Your task to perform on an android device: Show me popular videos on Youtube Image 0: 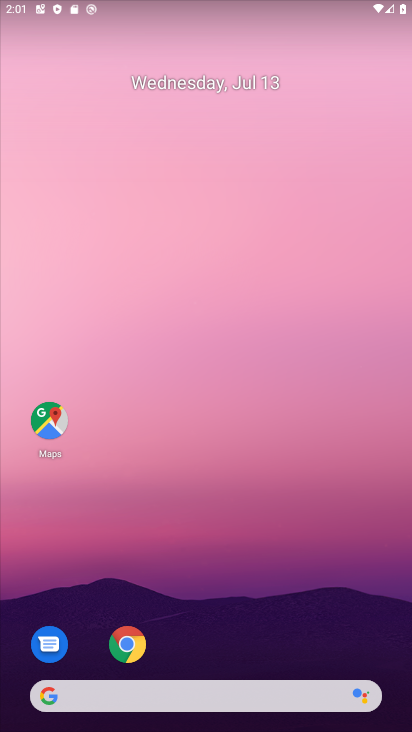
Step 0: drag from (310, 589) to (199, 108)
Your task to perform on an android device: Show me popular videos on Youtube Image 1: 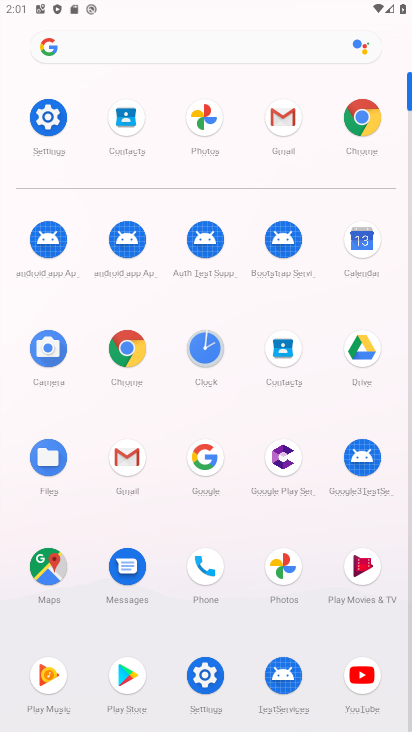
Step 1: click (366, 671)
Your task to perform on an android device: Show me popular videos on Youtube Image 2: 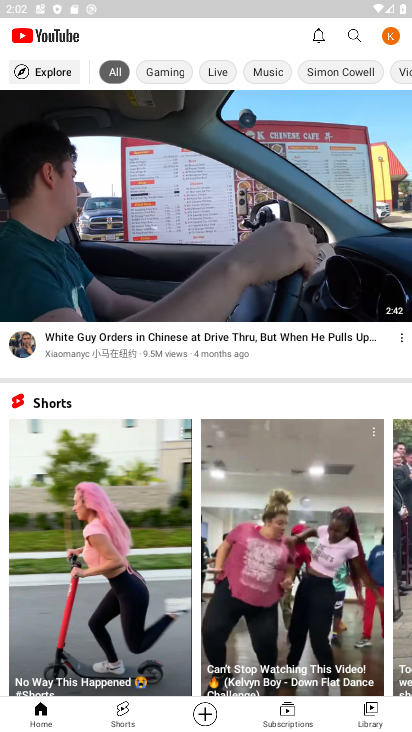
Step 2: click (49, 80)
Your task to perform on an android device: Show me popular videos on Youtube Image 3: 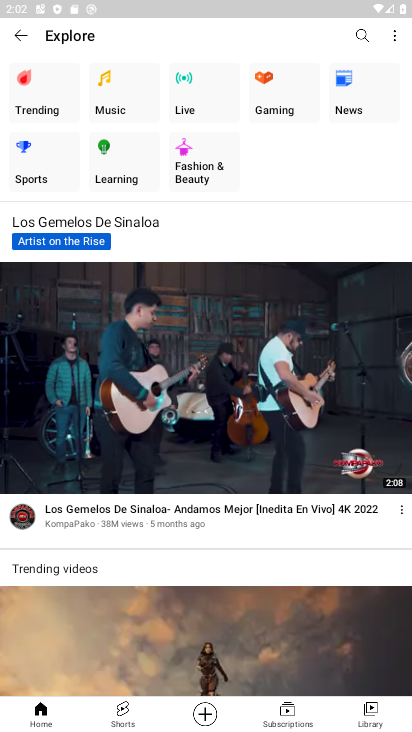
Step 3: click (28, 98)
Your task to perform on an android device: Show me popular videos on Youtube Image 4: 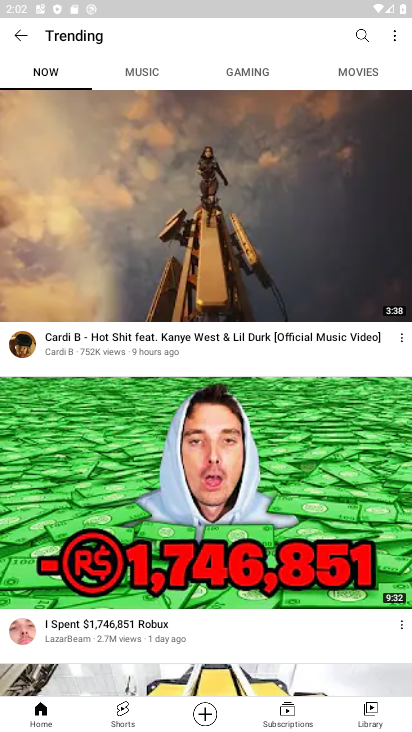
Step 4: task complete